Your task to perform on an android device: Open CNN.com Image 0: 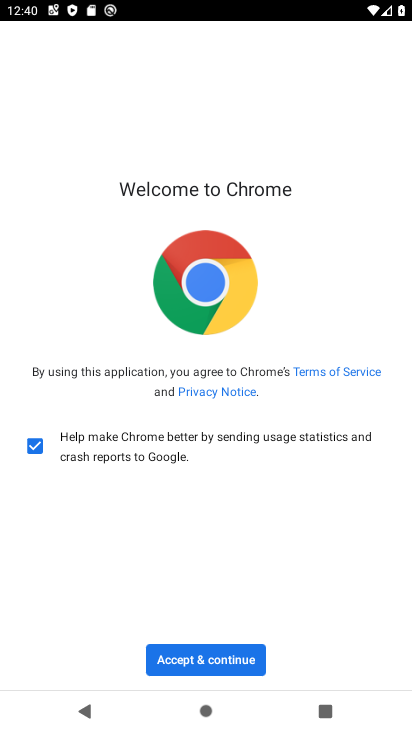
Step 0: click (201, 660)
Your task to perform on an android device: Open CNN.com Image 1: 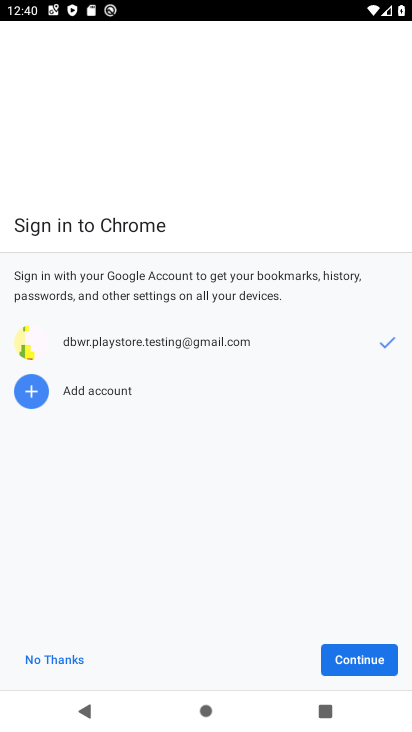
Step 1: click (354, 658)
Your task to perform on an android device: Open CNN.com Image 2: 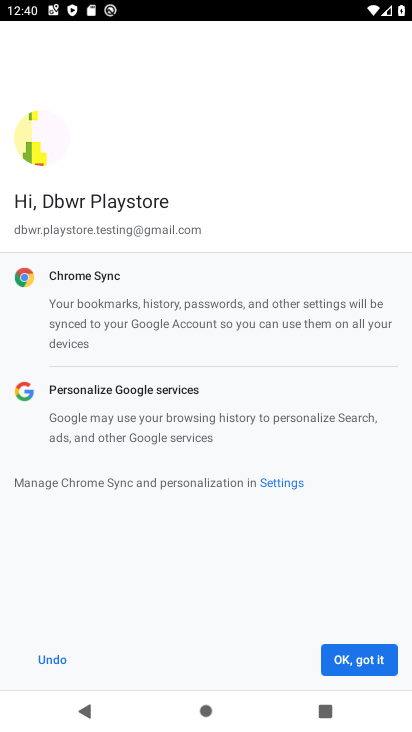
Step 2: click (354, 658)
Your task to perform on an android device: Open CNN.com Image 3: 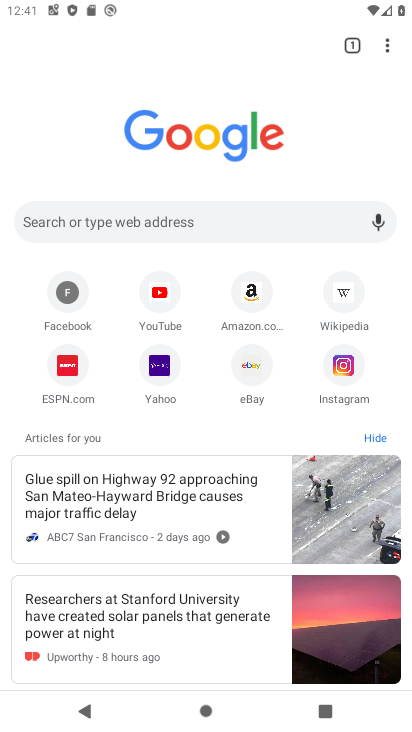
Step 3: click (149, 218)
Your task to perform on an android device: Open CNN.com Image 4: 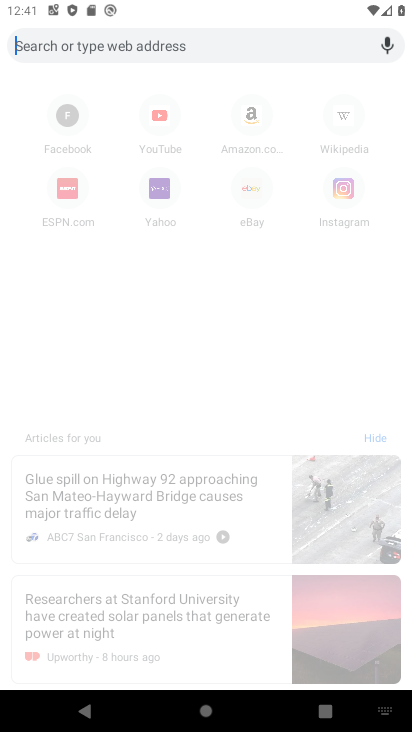
Step 4: type "CNN.com"
Your task to perform on an android device: Open CNN.com Image 5: 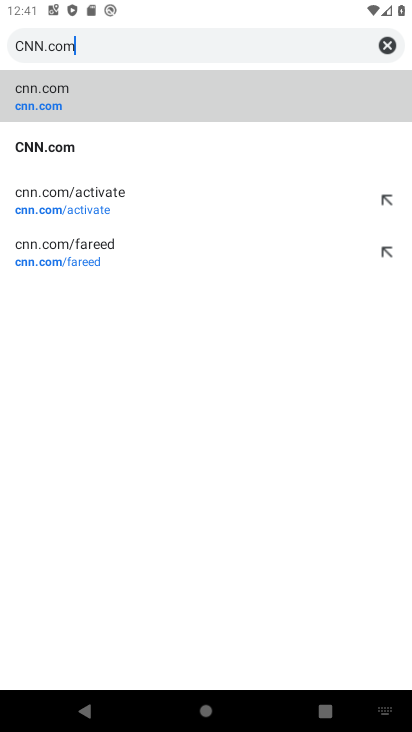
Step 5: click (72, 144)
Your task to perform on an android device: Open CNN.com Image 6: 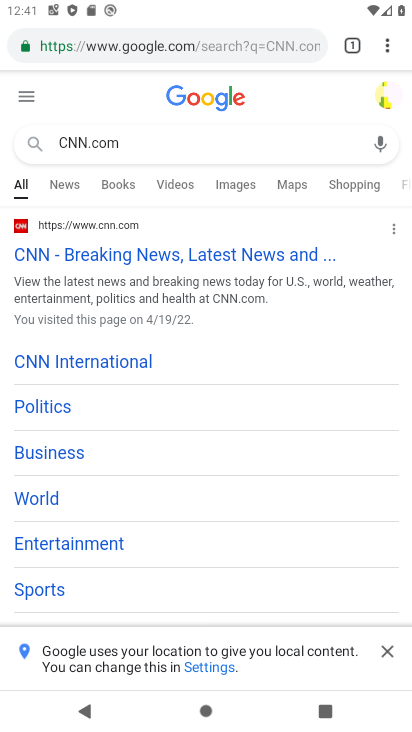
Step 6: click (183, 250)
Your task to perform on an android device: Open CNN.com Image 7: 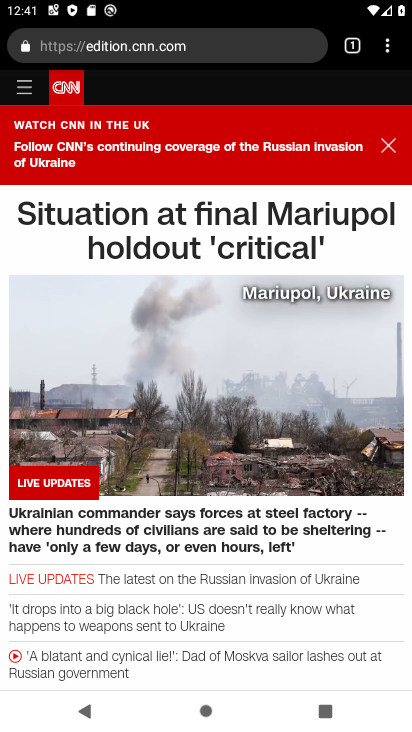
Step 7: task complete